Your task to perform on an android device: What's on the menu at Five Guys? Image 0: 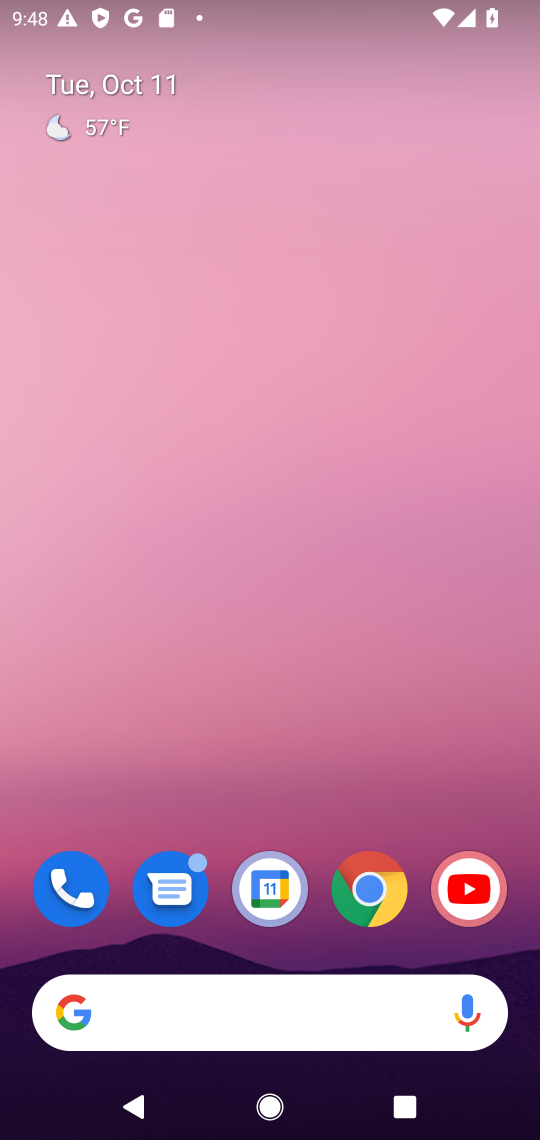
Step 0: click (215, 1029)
Your task to perform on an android device: What's on the menu at Five Guys? Image 1: 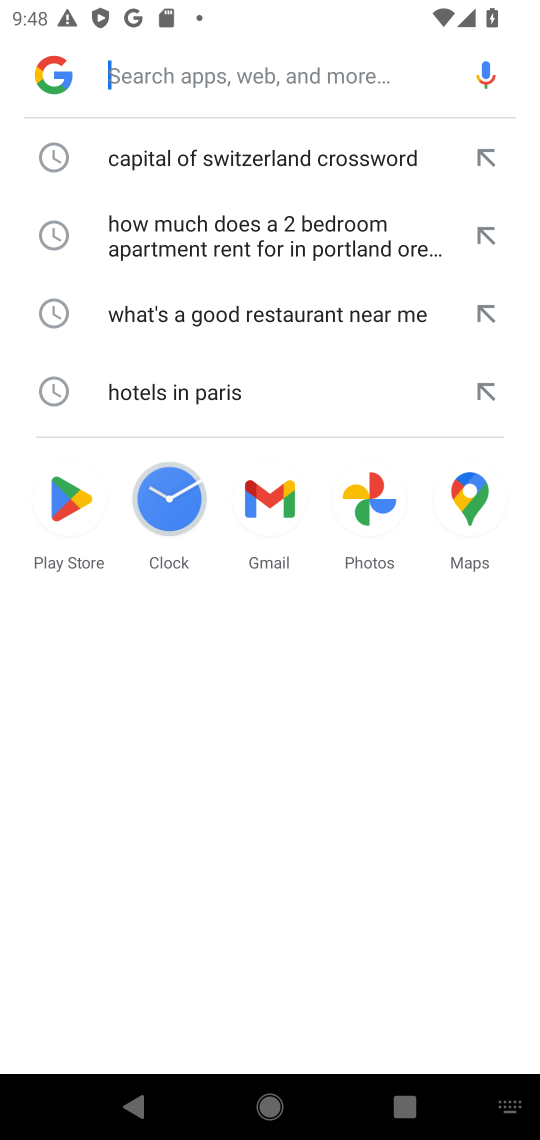
Step 1: click (175, 62)
Your task to perform on an android device: What's on the menu at Five Guys? Image 2: 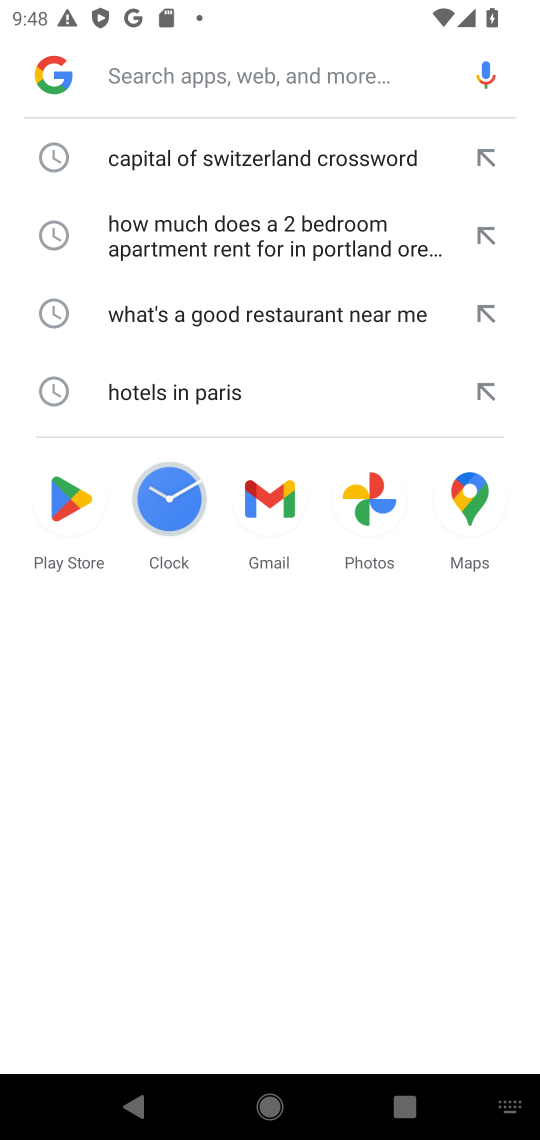
Step 2: type "What's on the menu at Five Guys?"
Your task to perform on an android device: What's on the menu at Five Guys? Image 3: 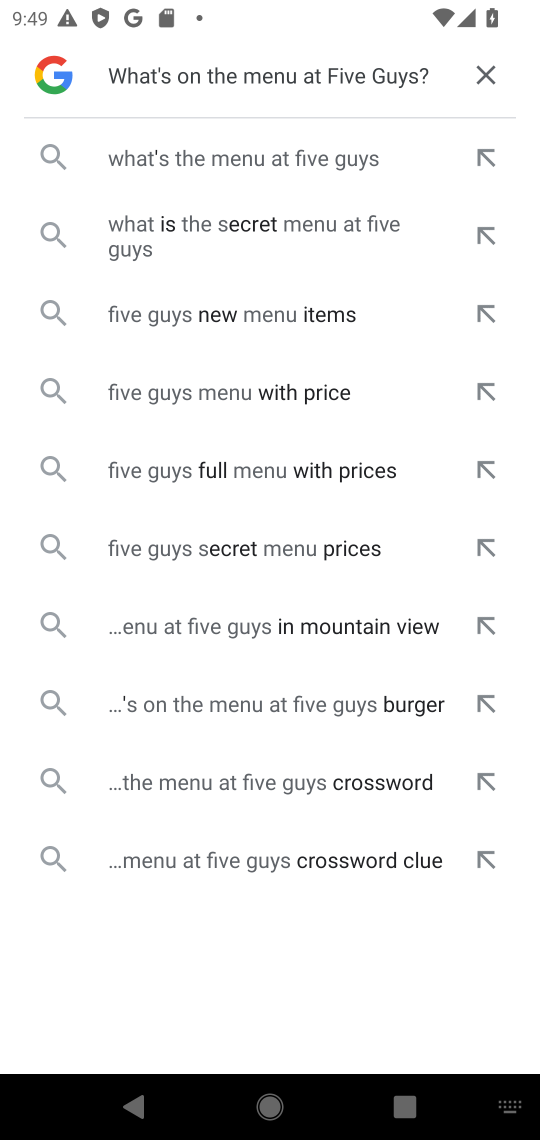
Step 3: click (244, 162)
Your task to perform on an android device: What's on the menu at Five Guys? Image 4: 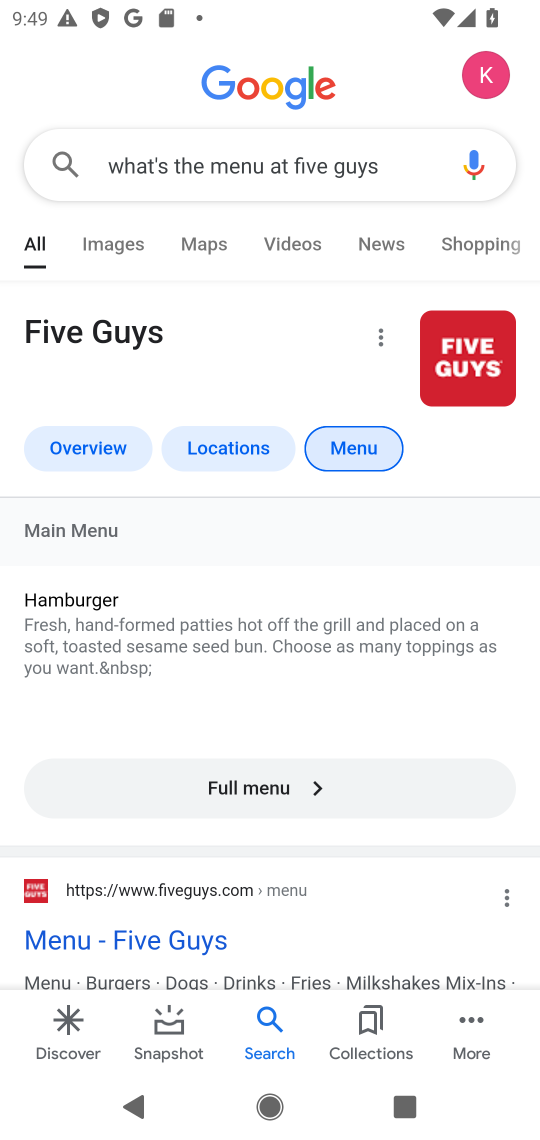
Step 4: task complete